Your task to perform on an android device: toggle notification dots Image 0: 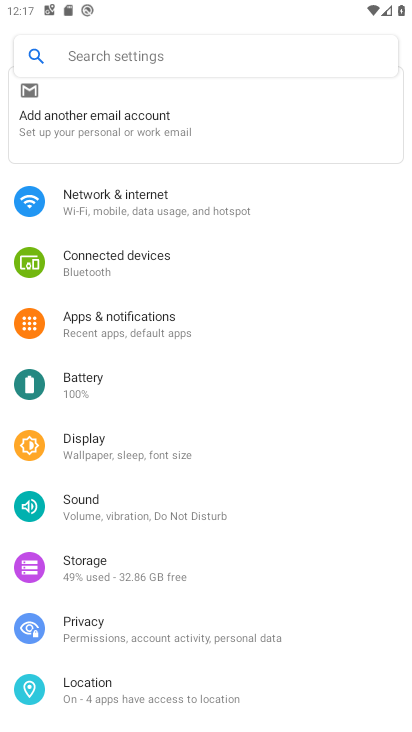
Step 0: click (110, 322)
Your task to perform on an android device: toggle notification dots Image 1: 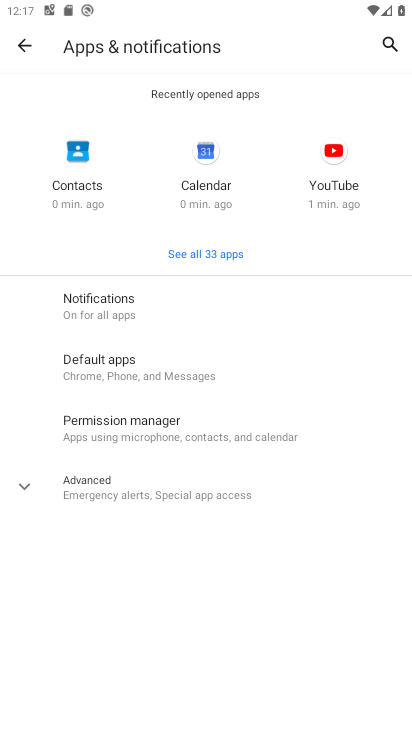
Step 1: click (95, 300)
Your task to perform on an android device: toggle notification dots Image 2: 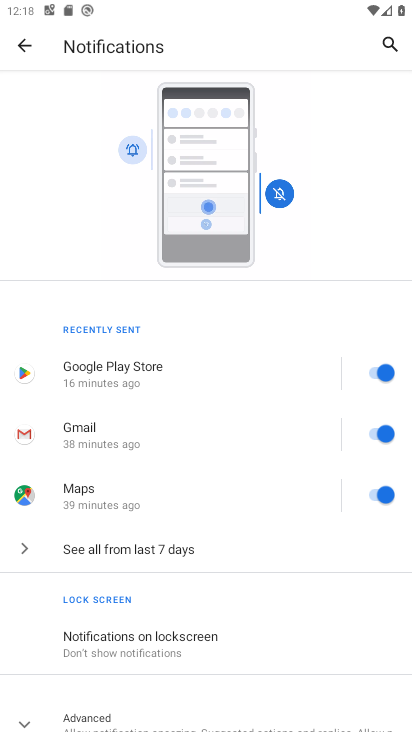
Step 2: drag from (237, 680) to (212, 293)
Your task to perform on an android device: toggle notification dots Image 3: 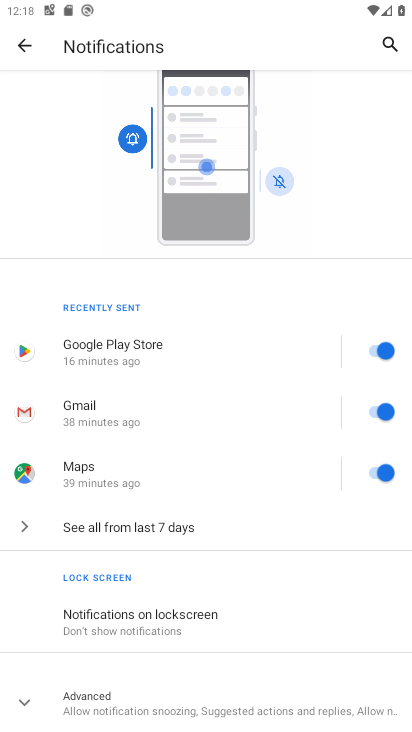
Step 3: click (25, 698)
Your task to perform on an android device: toggle notification dots Image 4: 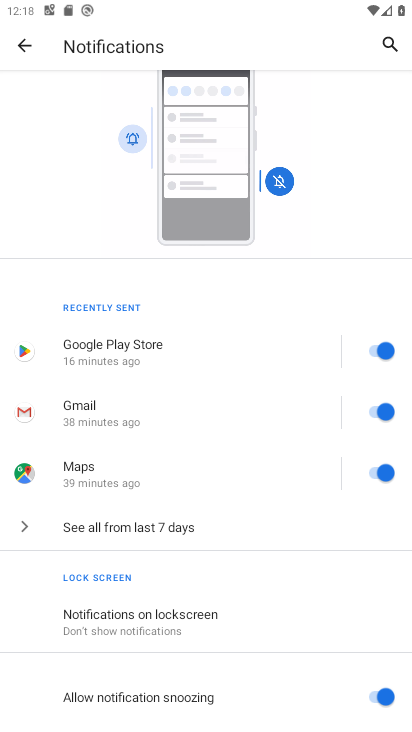
Step 4: drag from (282, 691) to (266, 259)
Your task to perform on an android device: toggle notification dots Image 5: 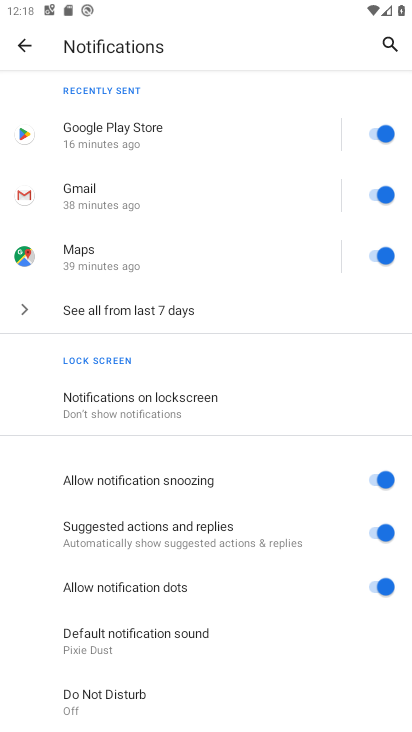
Step 5: click (373, 577)
Your task to perform on an android device: toggle notification dots Image 6: 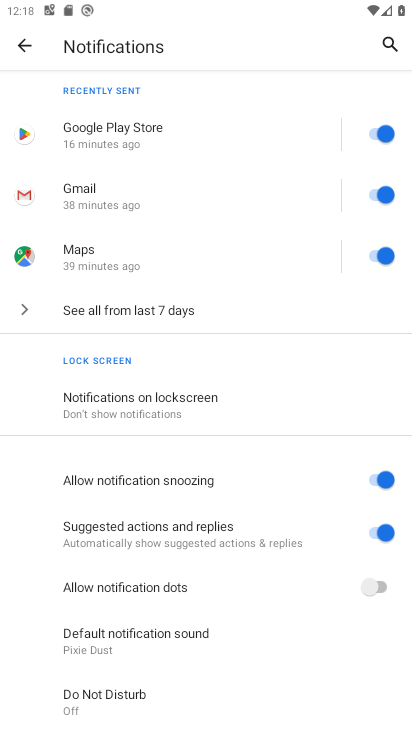
Step 6: task complete